Your task to perform on an android device: turn on improve location accuracy Image 0: 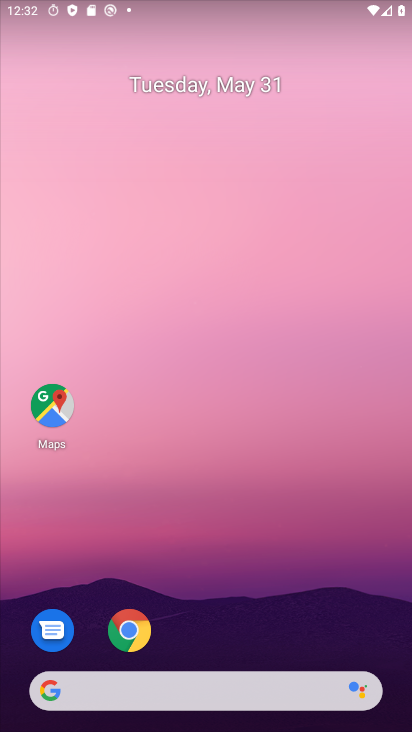
Step 0: drag from (211, 649) to (208, 157)
Your task to perform on an android device: turn on improve location accuracy Image 1: 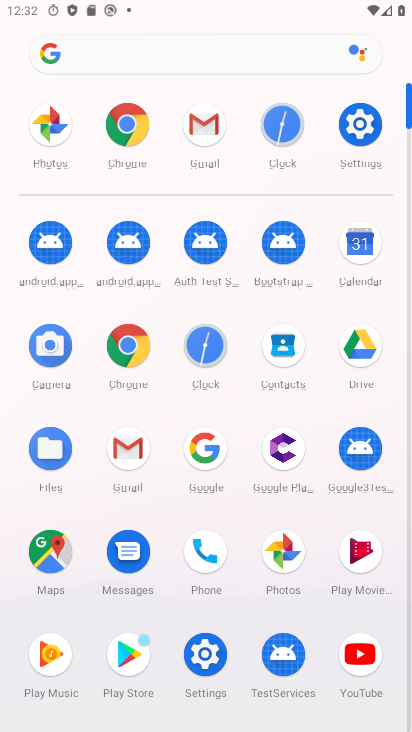
Step 1: click (361, 127)
Your task to perform on an android device: turn on improve location accuracy Image 2: 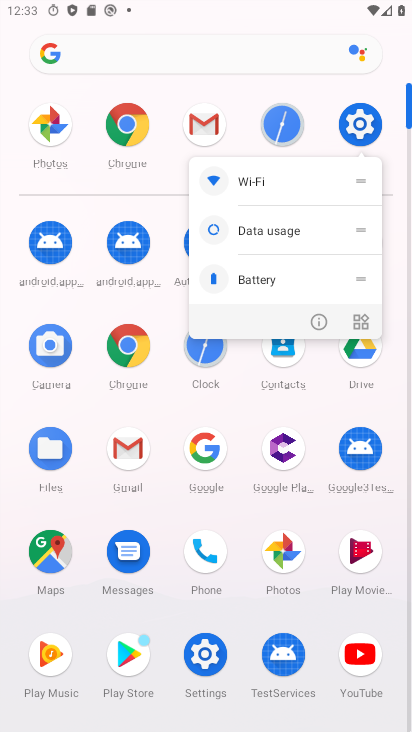
Step 2: click (358, 125)
Your task to perform on an android device: turn on improve location accuracy Image 3: 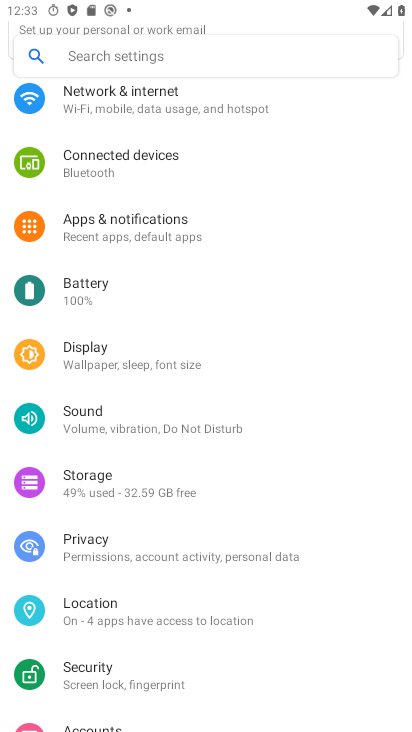
Step 3: click (141, 620)
Your task to perform on an android device: turn on improve location accuracy Image 4: 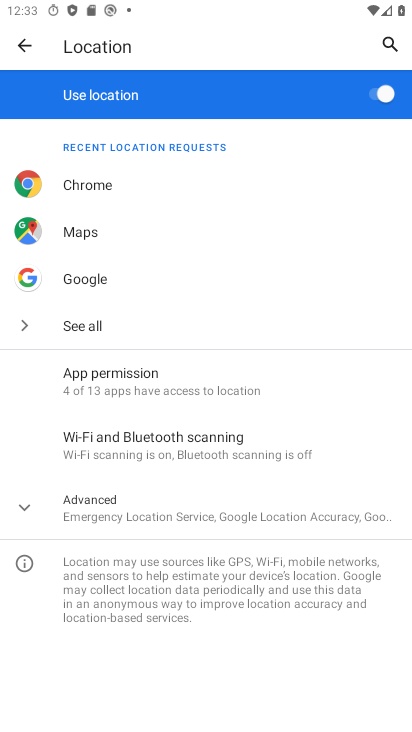
Step 4: click (26, 501)
Your task to perform on an android device: turn on improve location accuracy Image 5: 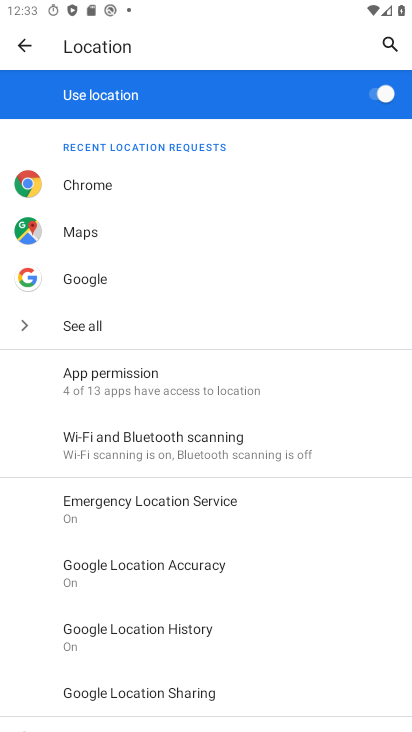
Step 5: click (149, 568)
Your task to perform on an android device: turn on improve location accuracy Image 6: 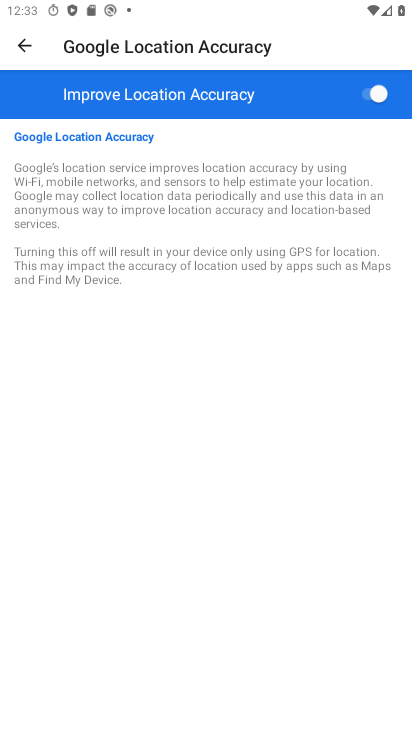
Step 6: task complete